Your task to perform on an android device: change timer sound Image 0: 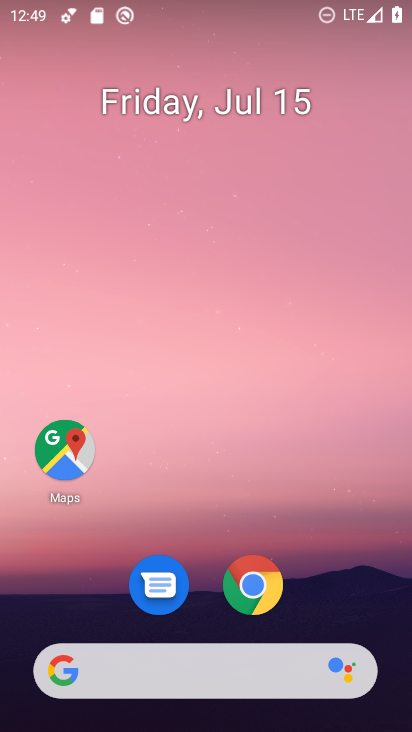
Step 0: drag from (313, 446) to (337, 57)
Your task to perform on an android device: change timer sound Image 1: 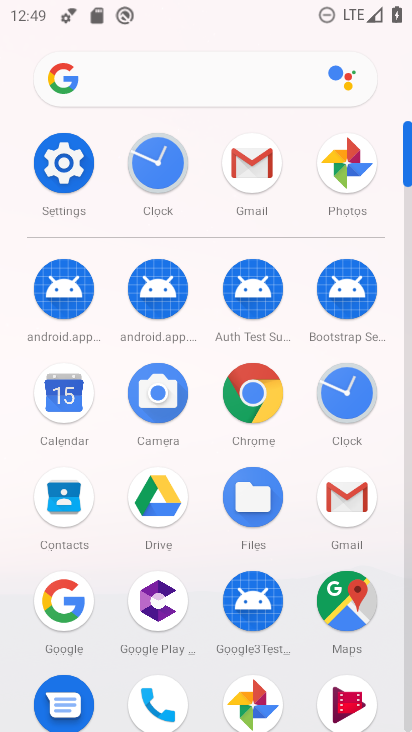
Step 1: click (357, 397)
Your task to perform on an android device: change timer sound Image 2: 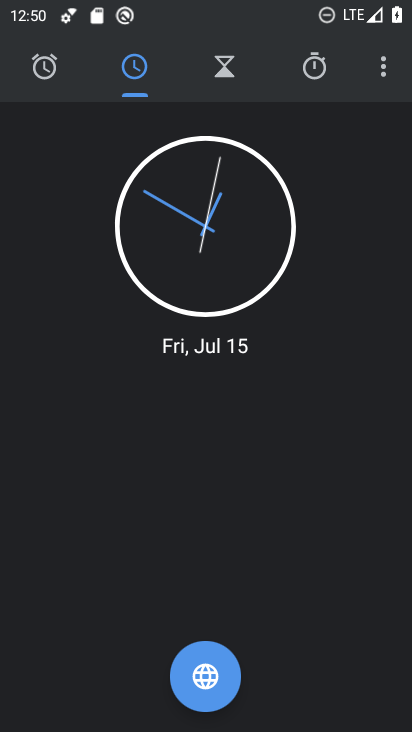
Step 2: click (386, 68)
Your task to perform on an android device: change timer sound Image 3: 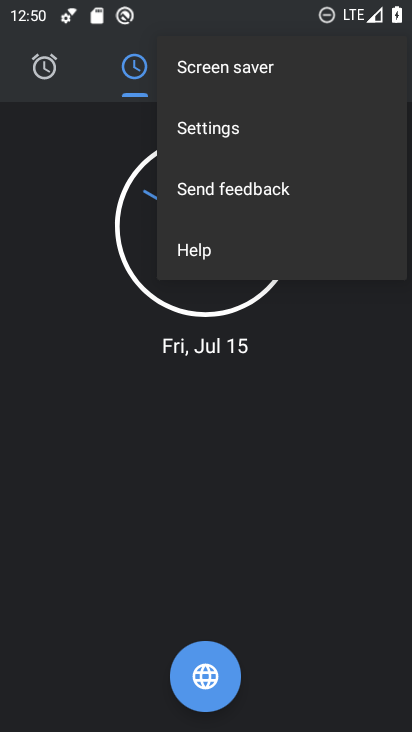
Step 3: click (247, 132)
Your task to perform on an android device: change timer sound Image 4: 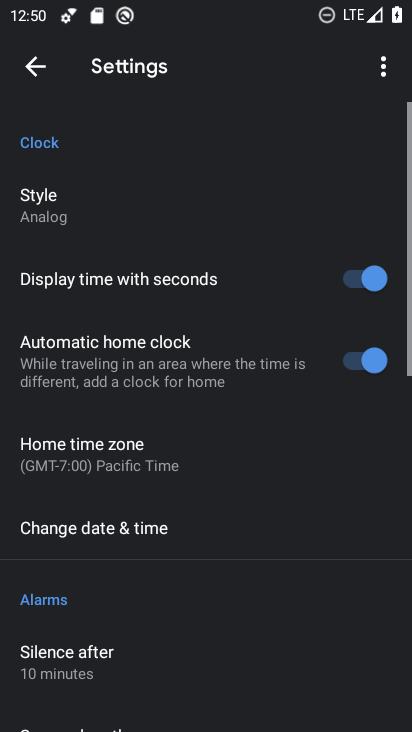
Step 4: drag from (228, 484) to (245, 77)
Your task to perform on an android device: change timer sound Image 5: 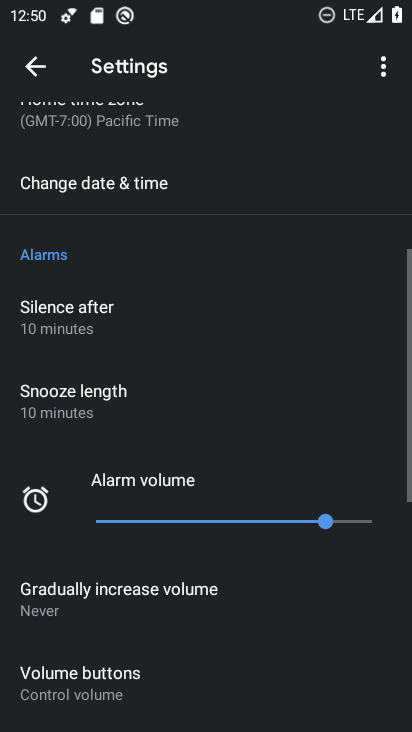
Step 5: drag from (237, 418) to (237, 106)
Your task to perform on an android device: change timer sound Image 6: 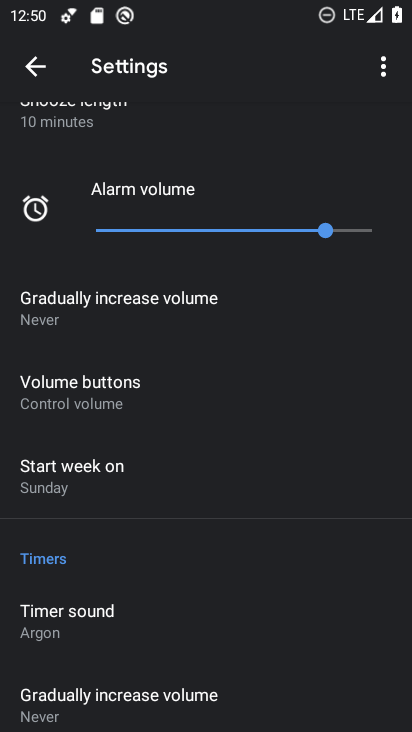
Step 6: click (99, 602)
Your task to perform on an android device: change timer sound Image 7: 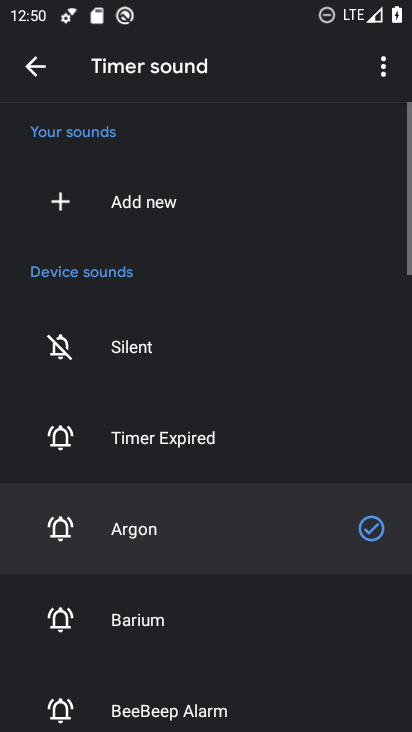
Step 7: click (127, 617)
Your task to perform on an android device: change timer sound Image 8: 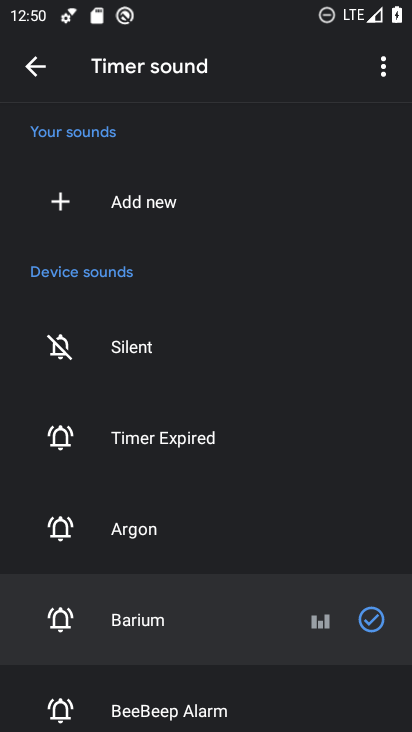
Step 8: task complete